Your task to perform on an android device: Go to Reddit.com Image 0: 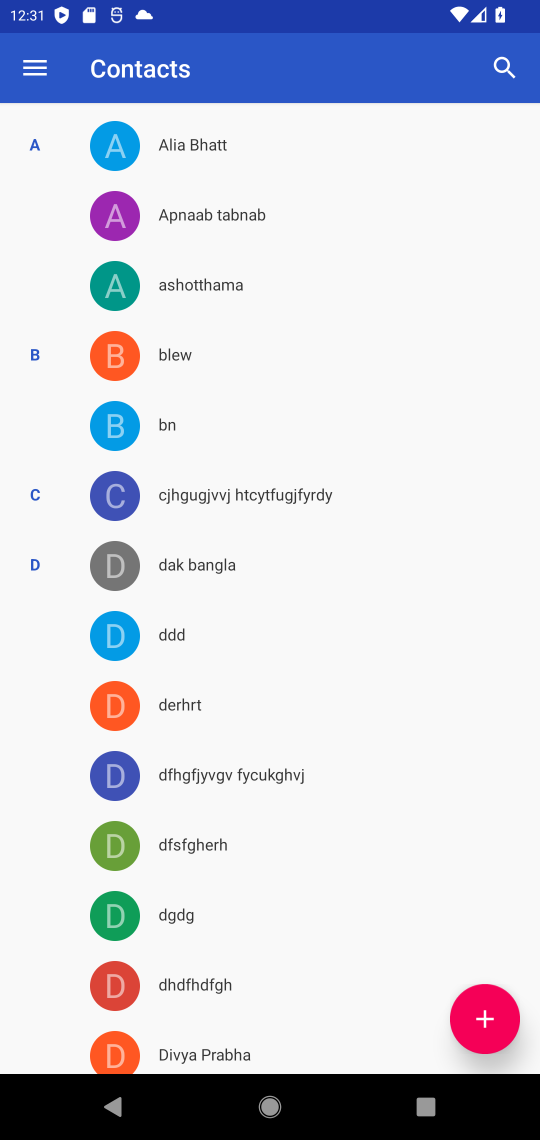
Step 0: press home button
Your task to perform on an android device: Go to Reddit.com Image 1: 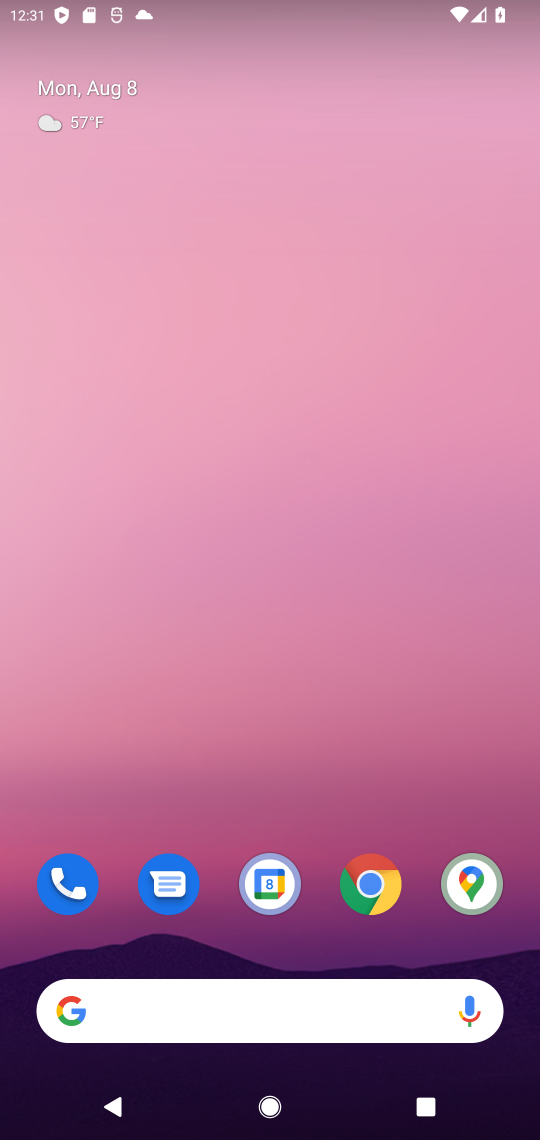
Step 1: click (289, 999)
Your task to perform on an android device: Go to Reddit.com Image 2: 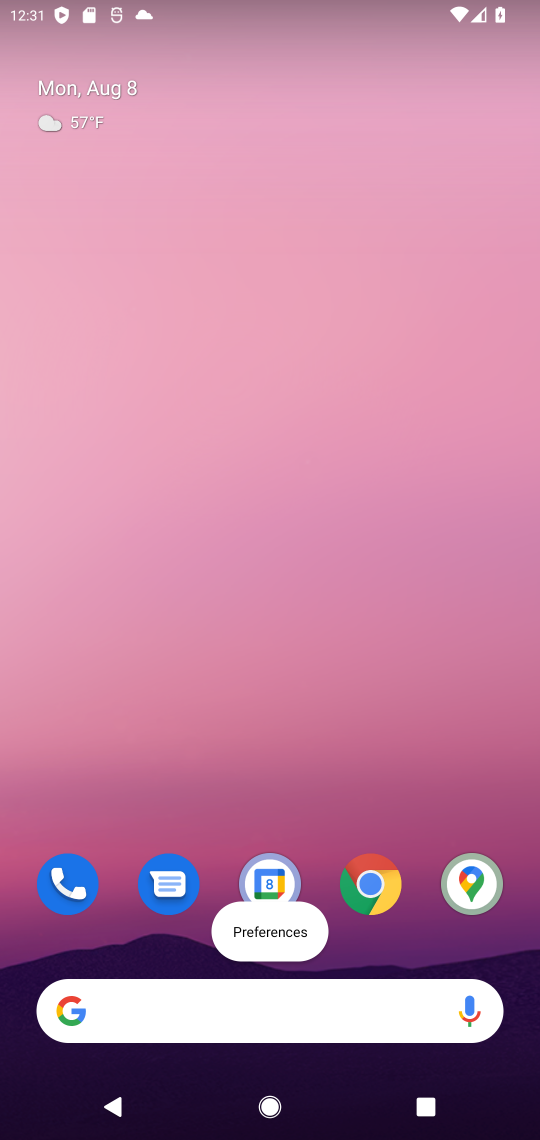
Step 2: type "reddit.com"
Your task to perform on an android device: Go to Reddit.com Image 3: 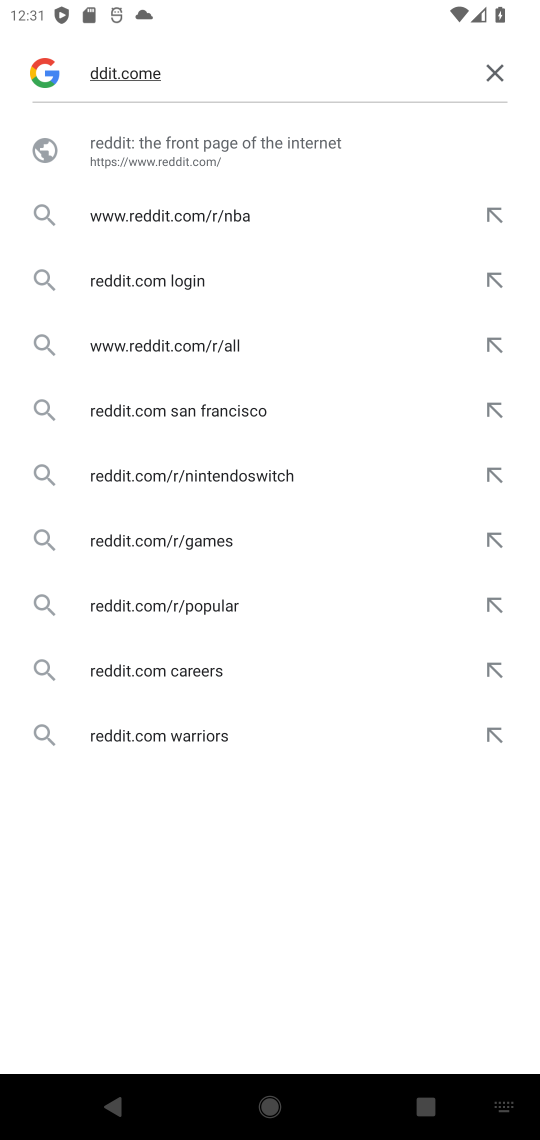
Step 3: click (197, 157)
Your task to perform on an android device: Go to Reddit.com Image 4: 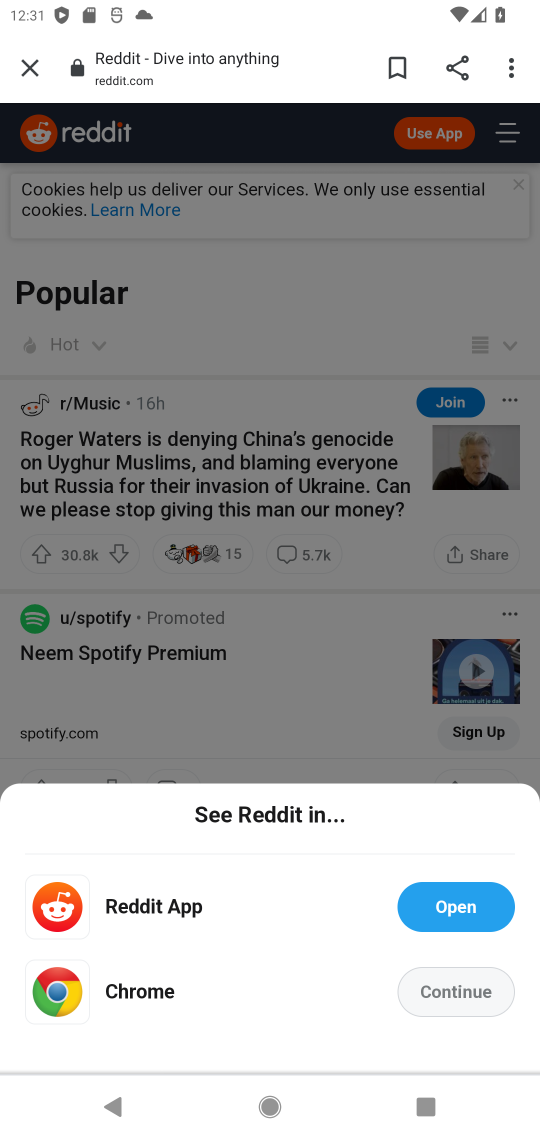
Step 4: task complete